Your task to perform on an android device: toggle improve location accuracy Image 0: 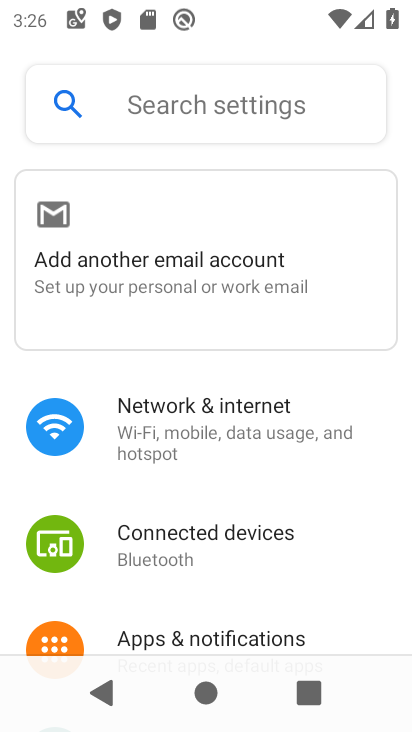
Step 0: drag from (223, 632) to (297, 202)
Your task to perform on an android device: toggle improve location accuracy Image 1: 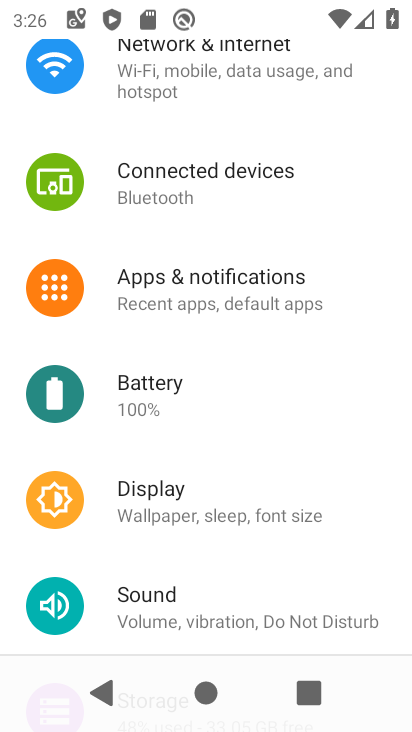
Step 1: drag from (235, 463) to (254, 159)
Your task to perform on an android device: toggle improve location accuracy Image 2: 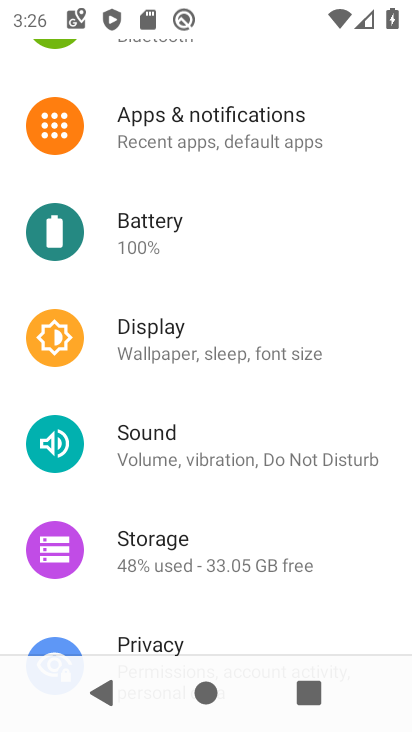
Step 2: drag from (213, 580) to (255, 199)
Your task to perform on an android device: toggle improve location accuracy Image 3: 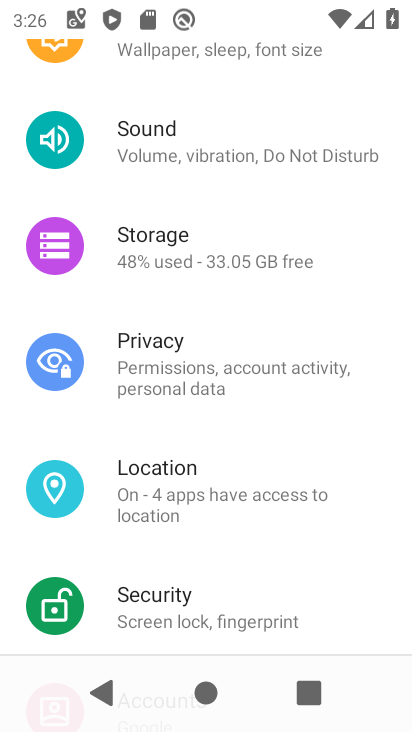
Step 3: click (219, 484)
Your task to perform on an android device: toggle improve location accuracy Image 4: 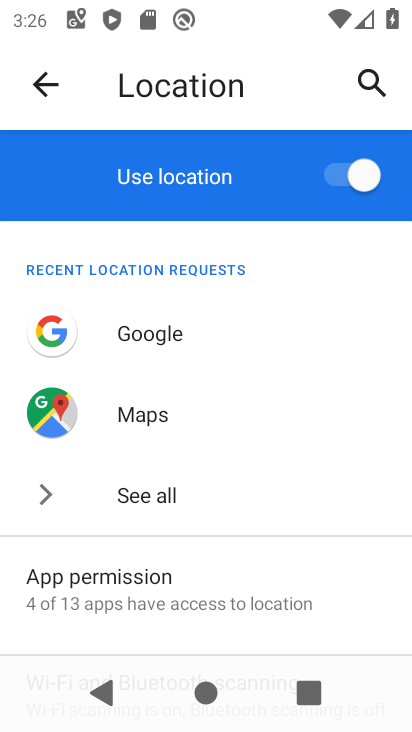
Step 4: drag from (217, 482) to (200, 269)
Your task to perform on an android device: toggle improve location accuracy Image 5: 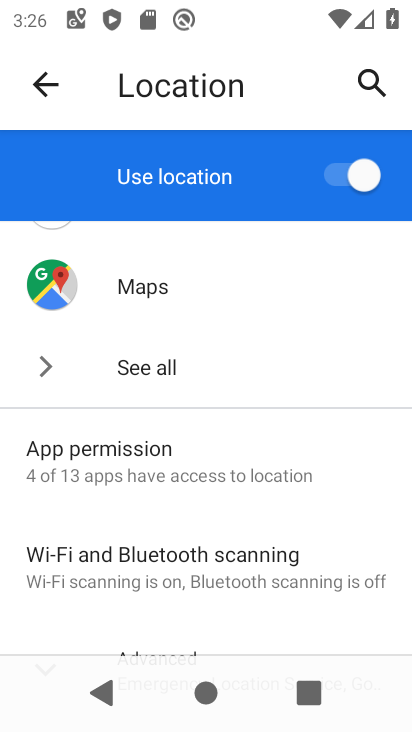
Step 5: click (362, 182)
Your task to perform on an android device: toggle improve location accuracy Image 6: 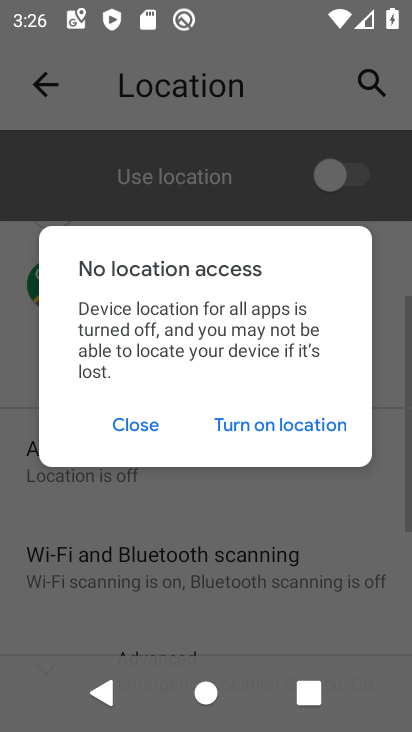
Step 6: task complete